Your task to perform on an android device: check the backup settings in the google photos Image 0: 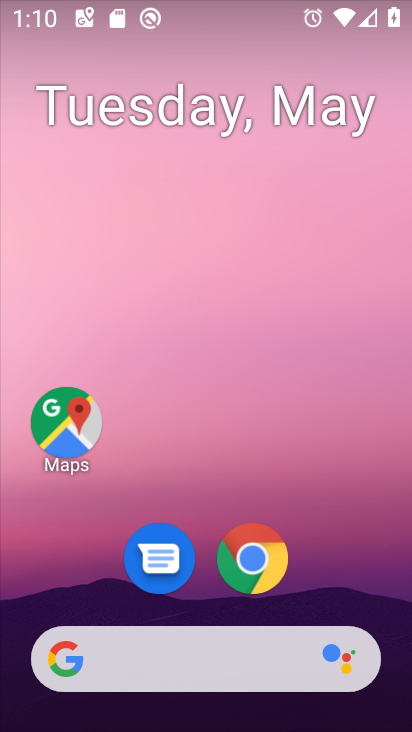
Step 0: drag from (383, 581) to (300, 77)
Your task to perform on an android device: check the backup settings in the google photos Image 1: 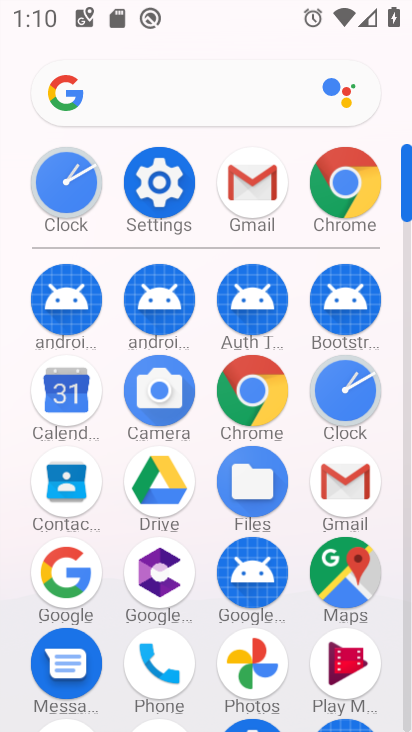
Step 1: click (408, 713)
Your task to perform on an android device: check the backup settings in the google photos Image 2: 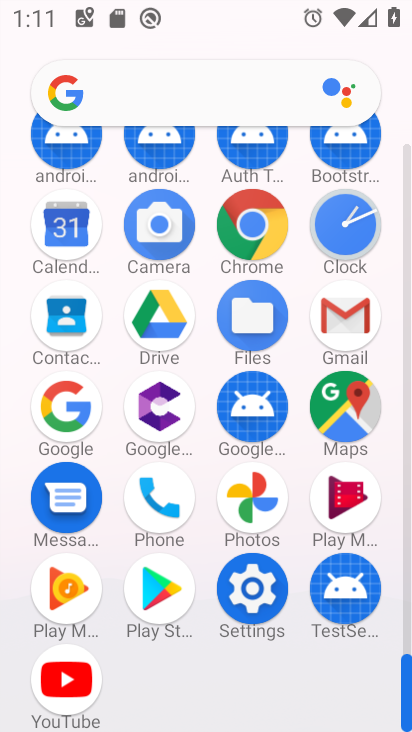
Step 2: click (263, 496)
Your task to perform on an android device: check the backup settings in the google photos Image 3: 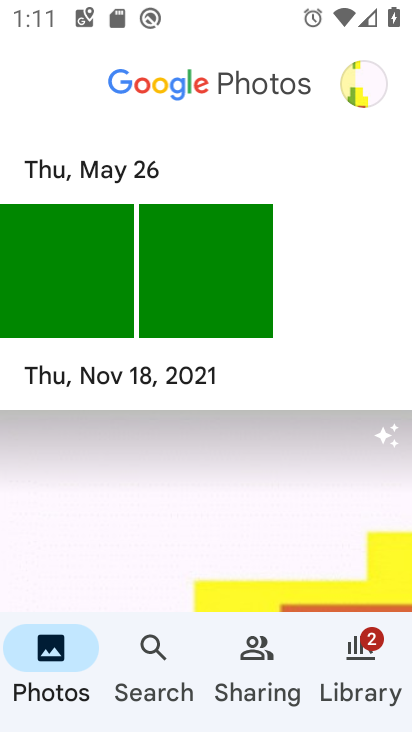
Step 3: click (367, 88)
Your task to perform on an android device: check the backup settings in the google photos Image 4: 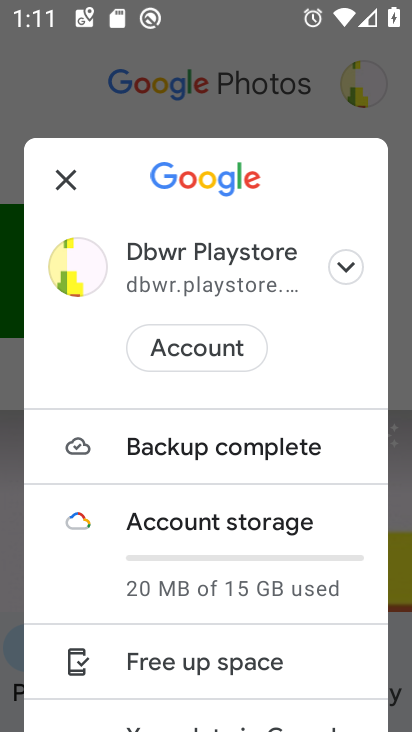
Step 4: drag from (264, 628) to (232, 281)
Your task to perform on an android device: check the backup settings in the google photos Image 5: 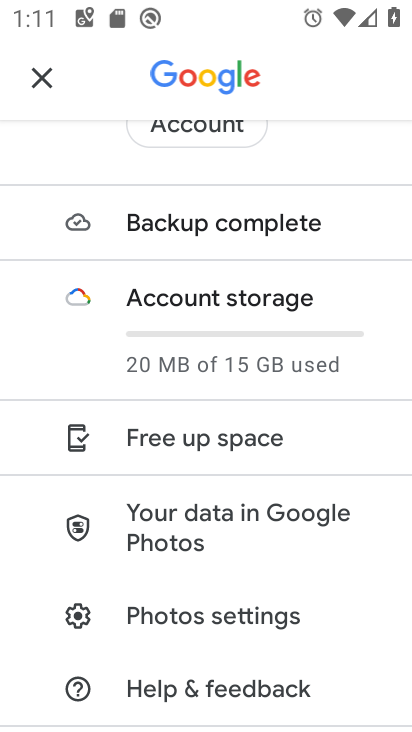
Step 5: click (265, 627)
Your task to perform on an android device: check the backup settings in the google photos Image 6: 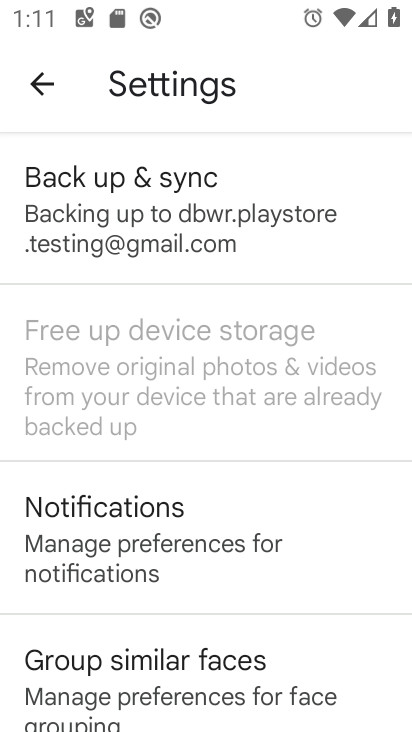
Step 6: click (254, 249)
Your task to perform on an android device: check the backup settings in the google photos Image 7: 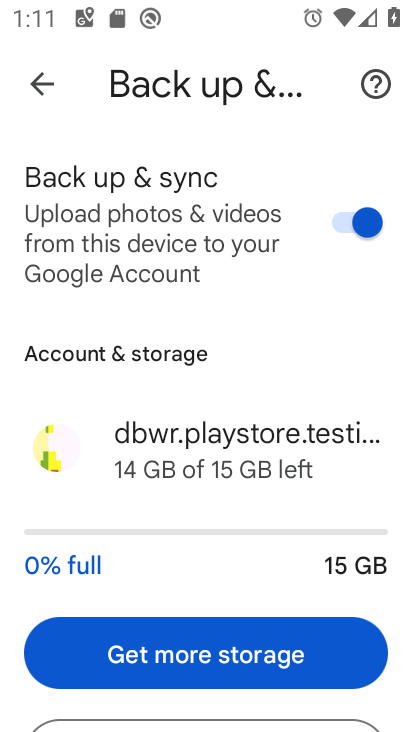
Step 7: task complete